Your task to perform on an android device: empty trash in the gmail app Image 0: 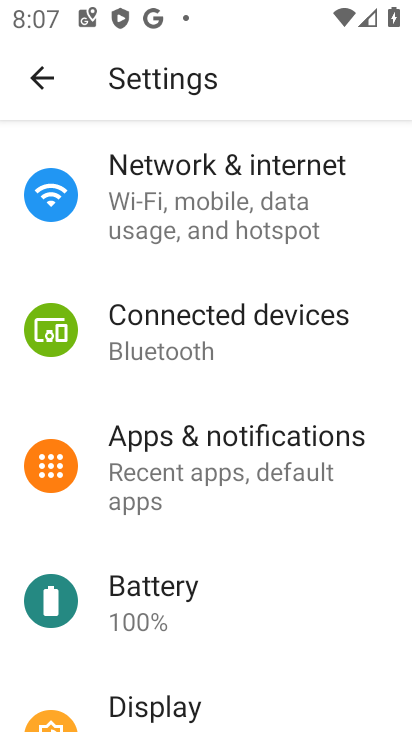
Step 0: press home button
Your task to perform on an android device: empty trash in the gmail app Image 1: 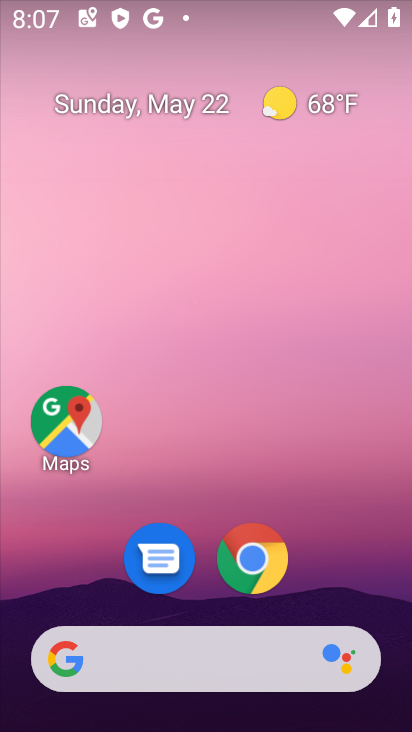
Step 1: drag from (322, 540) to (302, 175)
Your task to perform on an android device: empty trash in the gmail app Image 2: 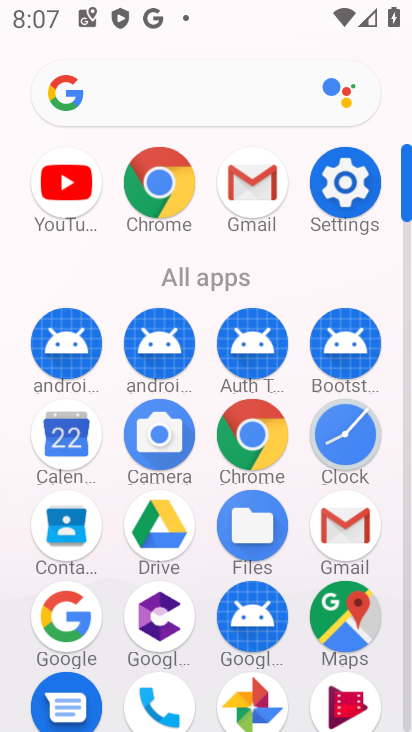
Step 2: click (338, 508)
Your task to perform on an android device: empty trash in the gmail app Image 3: 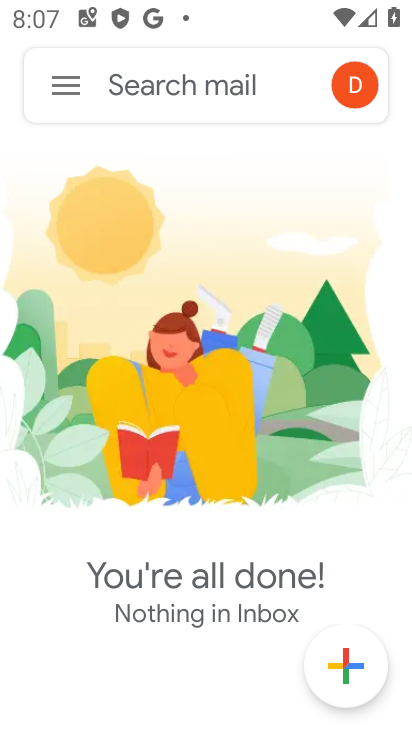
Step 3: click (57, 84)
Your task to perform on an android device: empty trash in the gmail app Image 4: 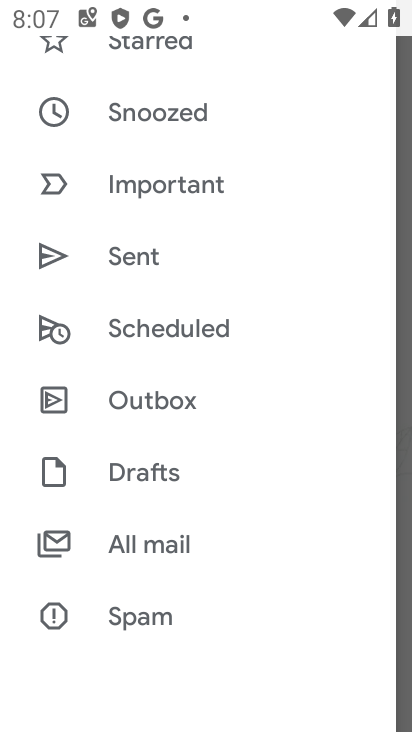
Step 4: drag from (194, 460) to (259, 94)
Your task to perform on an android device: empty trash in the gmail app Image 5: 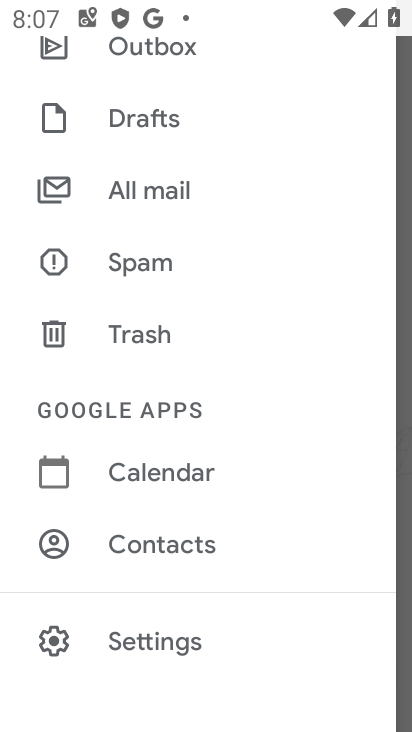
Step 5: click (140, 317)
Your task to perform on an android device: empty trash in the gmail app Image 6: 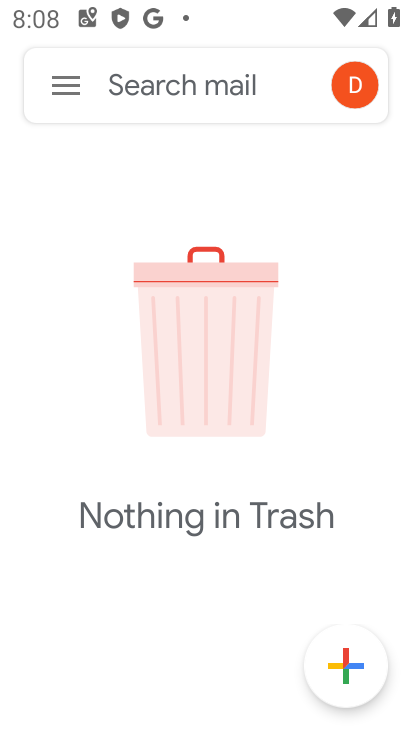
Step 6: task complete